Your task to perform on an android device: turn off sleep mode Image 0: 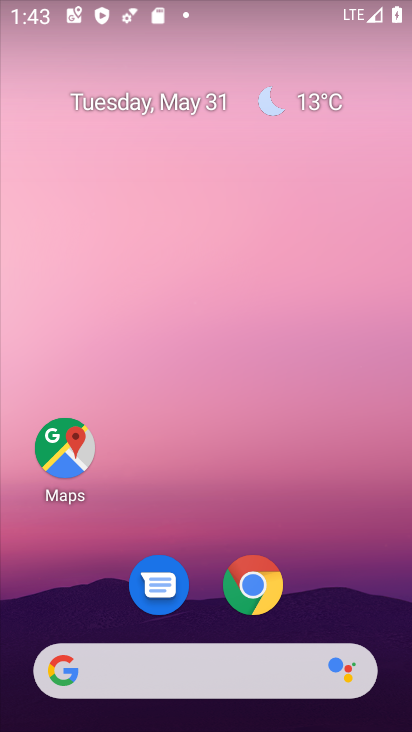
Step 0: drag from (214, 522) to (214, 36)
Your task to perform on an android device: turn off sleep mode Image 1: 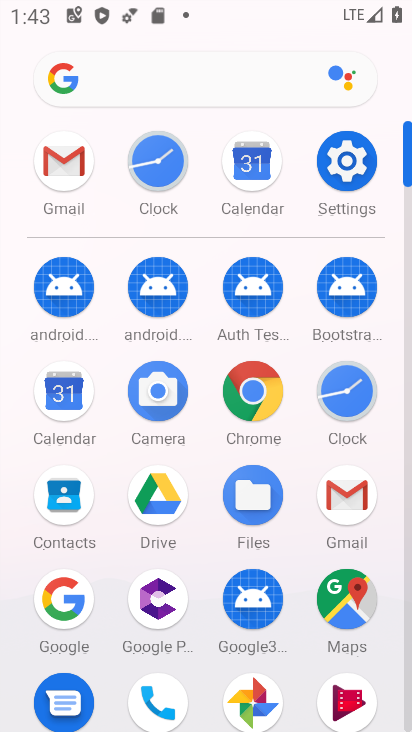
Step 1: click (350, 172)
Your task to perform on an android device: turn off sleep mode Image 2: 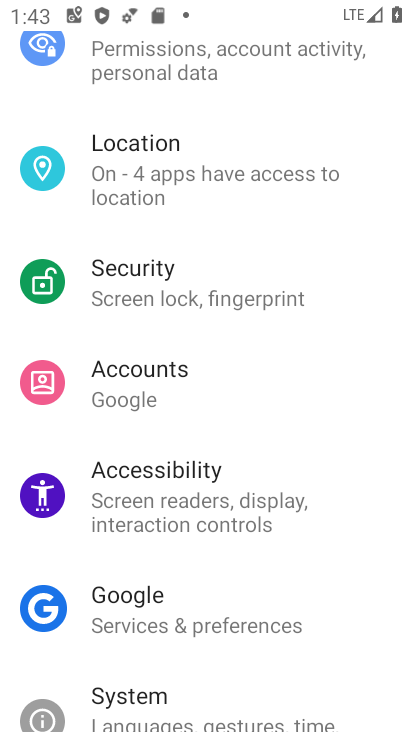
Step 2: drag from (234, 211) to (278, 636)
Your task to perform on an android device: turn off sleep mode Image 3: 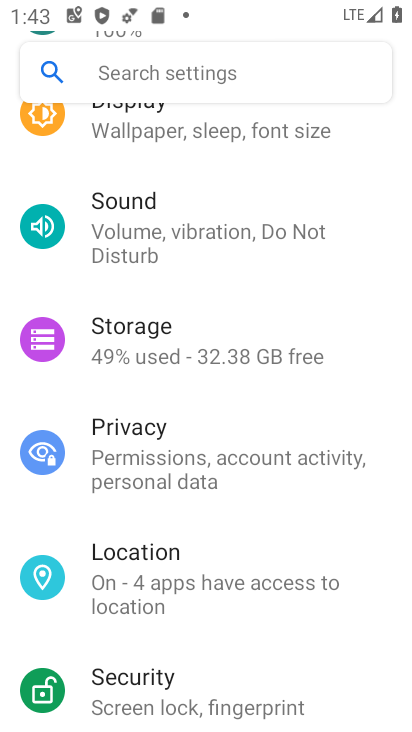
Step 3: drag from (222, 233) to (239, 453)
Your task to perform on an android device: turn off sleep mode Image 4: 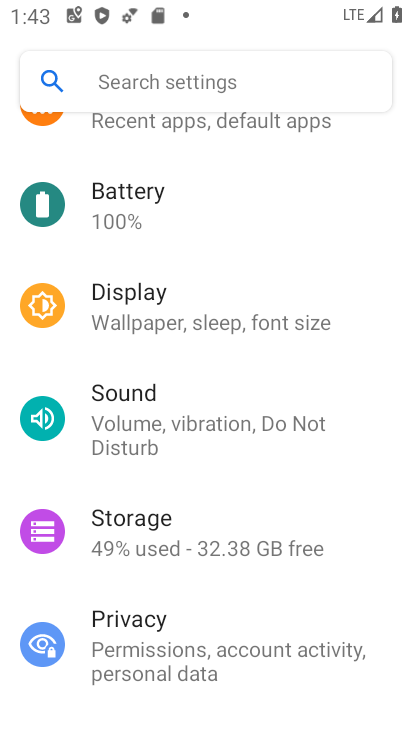
Step 4: click (196, 300)
Your task to perform on an android device: turn off sleep mode Image 5: 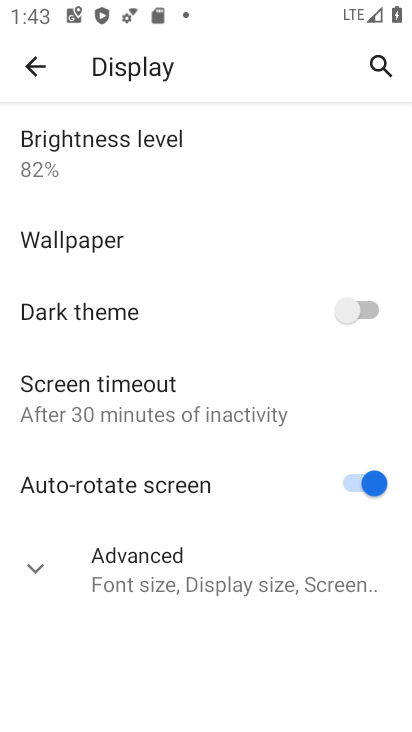
Step 5: click (37, 565)
Your task to perform on an android device: turn off sleep mode Image 6: 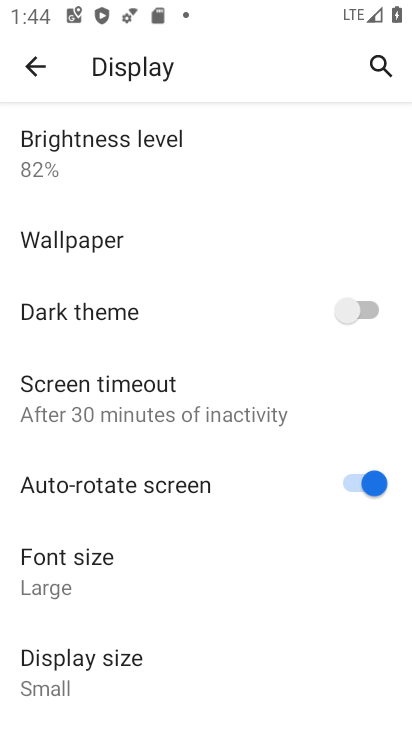
Step 6: task complete